Your task to perform on an android device: Go to ESPN.com Image 0: 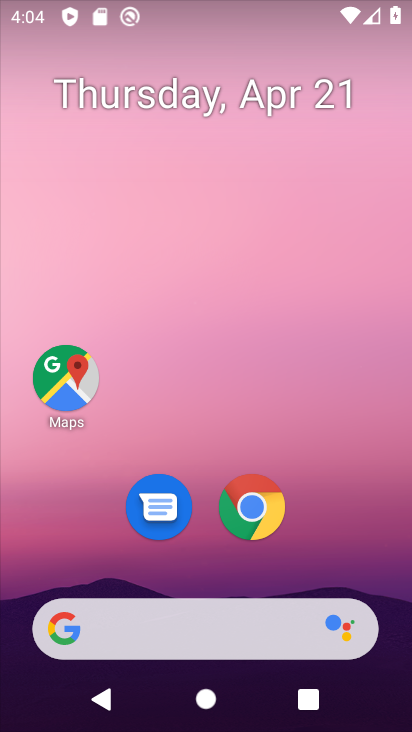
Step 0: click (274, 508)
Your task to perform on an android device: Go to ESPN.com Image 1: 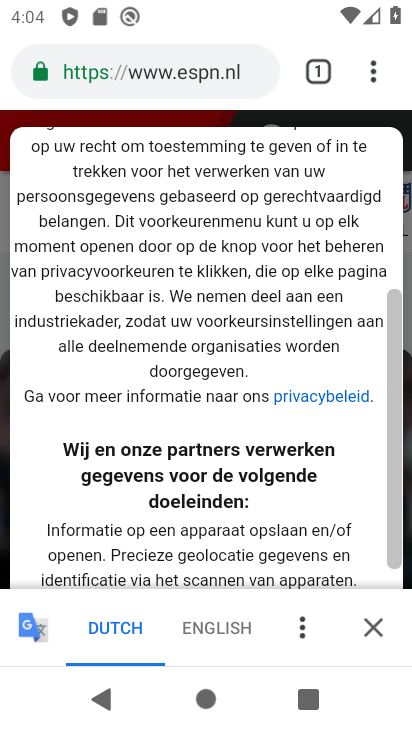
Step 1: click (328, 70)
Your task to perform on an android device: Go to ESPN.com Image 2: 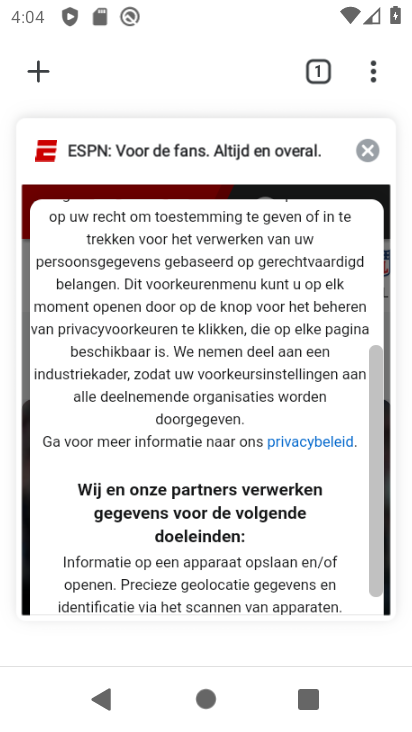
Step 2: click (54, 68)
Your task to perform on an android device: Go to ESPN.com Image 3: 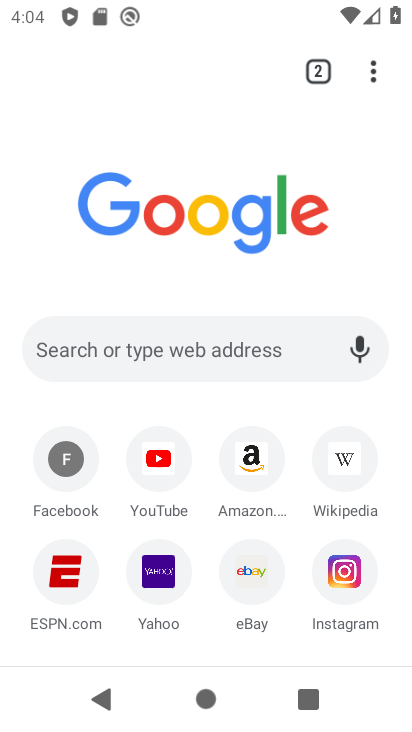
Step 3: click (69, 565)
Your task to perform on an android device: Go to ESPN.com Image 4: 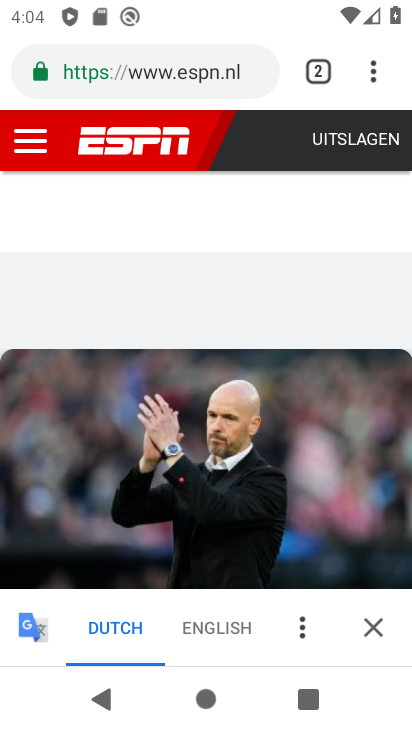
Step 4: task complete